Your task to perform on an android device: Open calendar and show me the fourth week of next month Image 0: 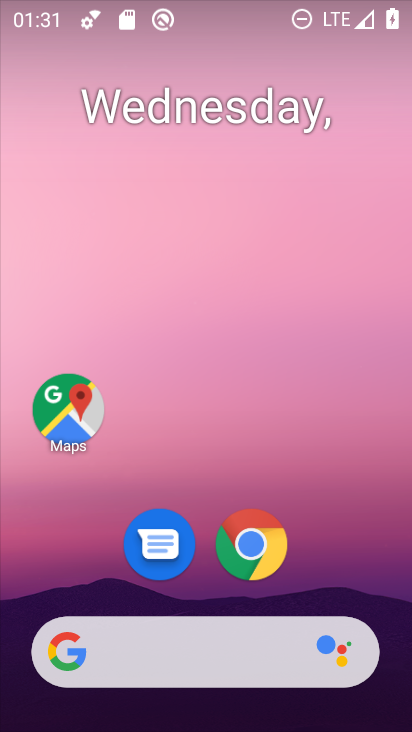
Step 0: drag from (336, 594) to (335, 52)
Your task to perform on an android device: Open calendar and show me the fourth week of next month Image 1: 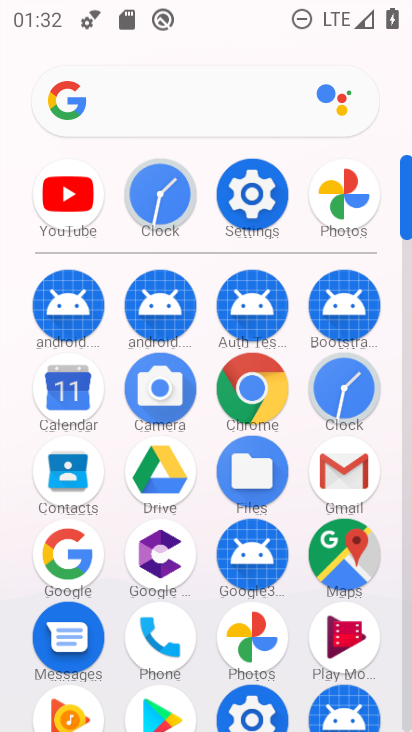
Step 1: drag from (207, 620) to (277, 309)
Your task to perform on an android device: Open calendar and show me the fourth week of next month Image 2: 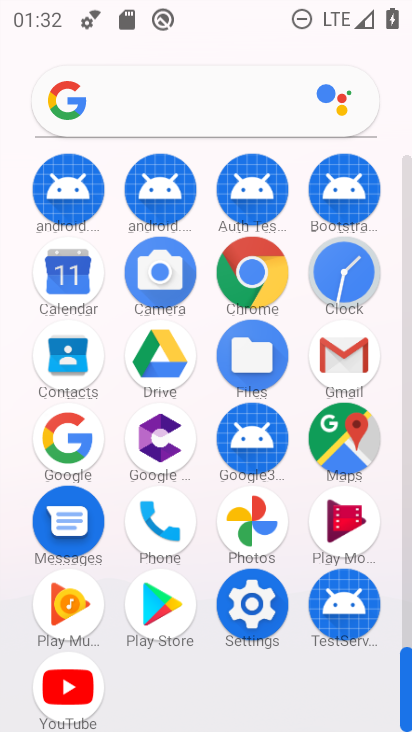
Step 2: click (71, 271)
Your task to perform on an android device: Open calendar and show me the fourth week of next month Image 3: 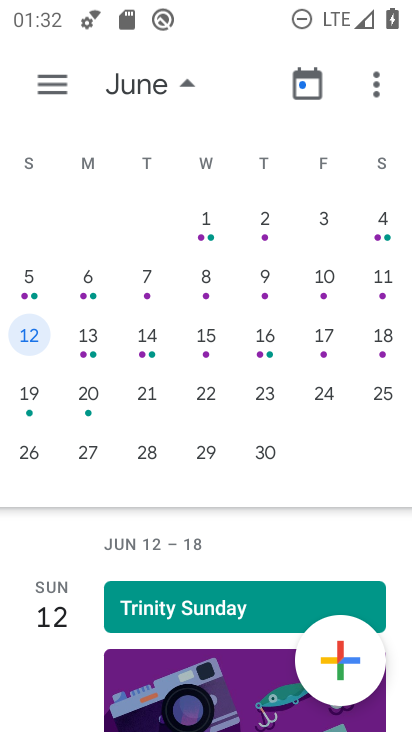
Step 3: click (24, 394)
Your task to perform on an android device: Open calendar and show me the fourth week of next month Image 4: 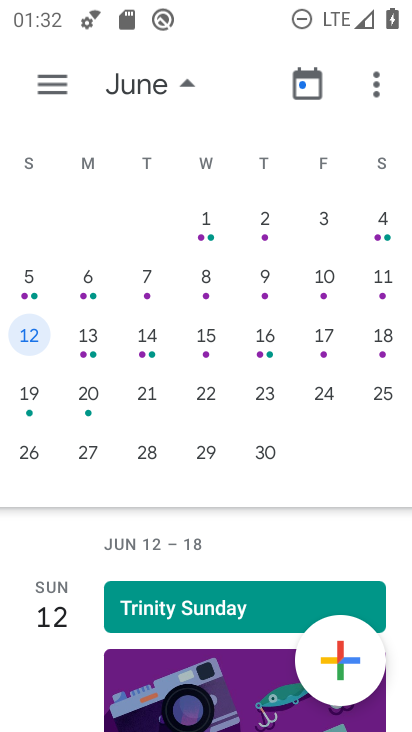
Step 4: click (31, 402)
Your task to perform on an android device: Open calendar and show me the fourth week of next month Image 5: 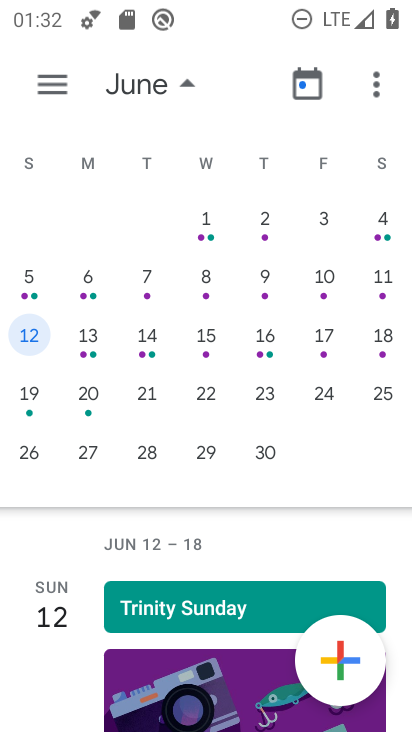
Step 5: task complete